Your task to perform on an android device: Go to notification settings Image 0: 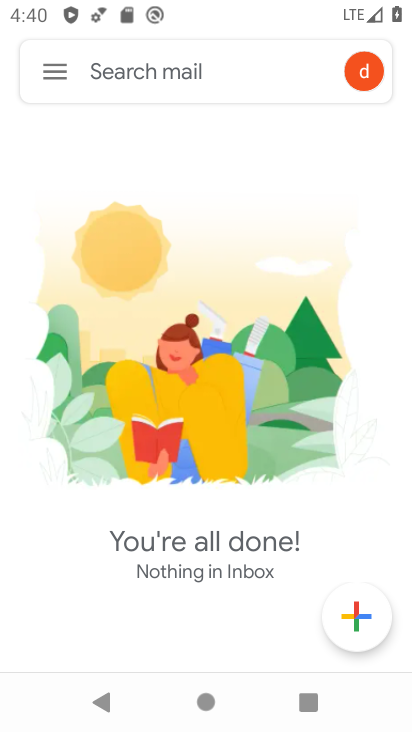
Step 0: press home button
Your task to perform on an android device: Go to notification settings Image 1: 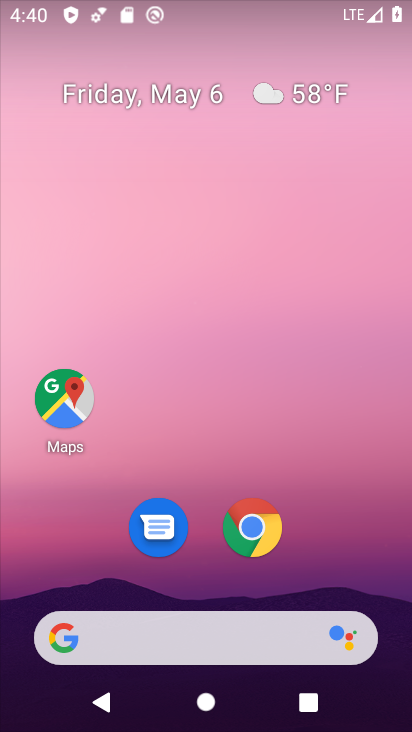
Step 1: drag from (184, 716) to (188, 168)
Your task to perform on an android device: Go to notification settings Image 2: 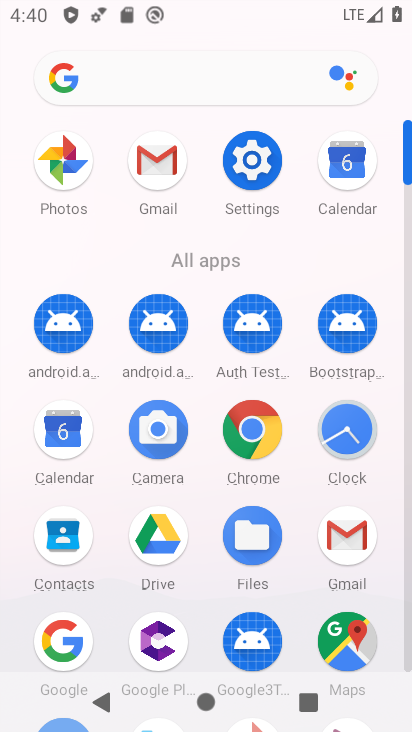
Step 2: click (250, 153)
Your task to perform on an android device: Go to notification settings Image 3: 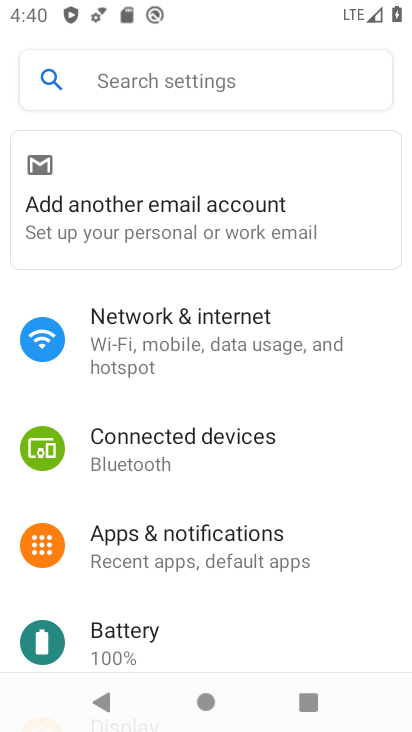
Step 3: click (149, 544)
Your task to perform on an android device: Go to notification settings Image 4: 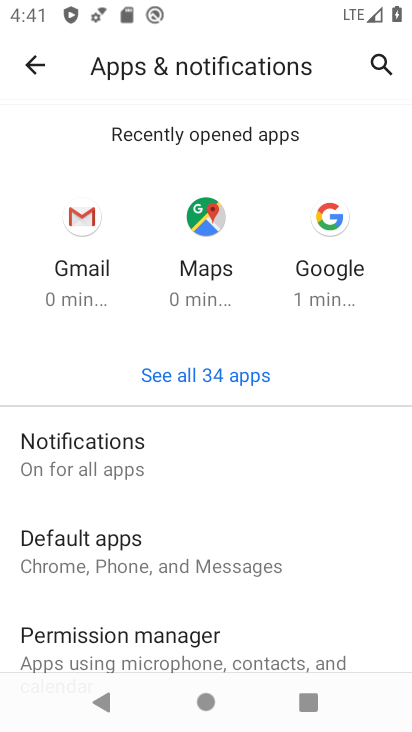
Step 4: click (110, 450)
Your task to perform on an android device: Go to notification settings Image 5: 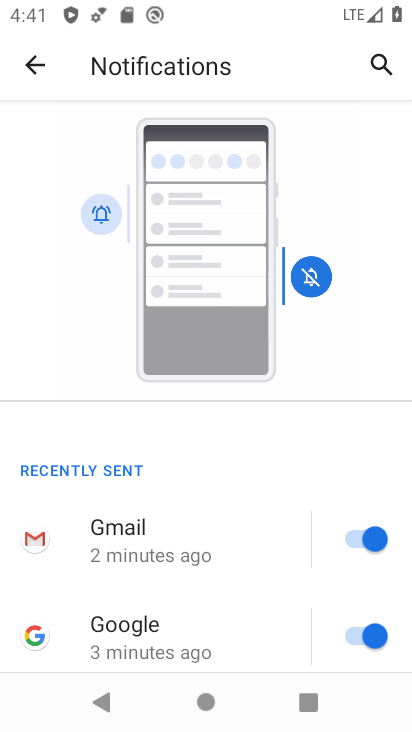
Step 5: task complete